Your task to perform on an android device: View the shopping cart on newegg. Add duracell triple a to the cart on newegg, then select checkout. Image 0: 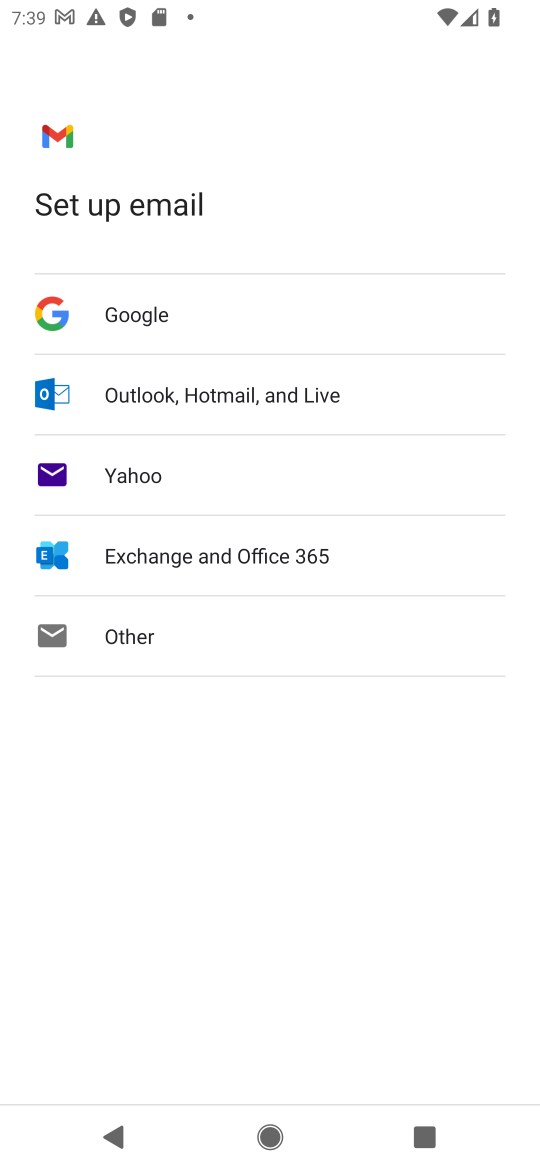
Step 0: press home button
Your task to perform on an android device: View the shopping cart on newegg. Add duracell triple a to the cart on newegg, then select checkout. Image 1: 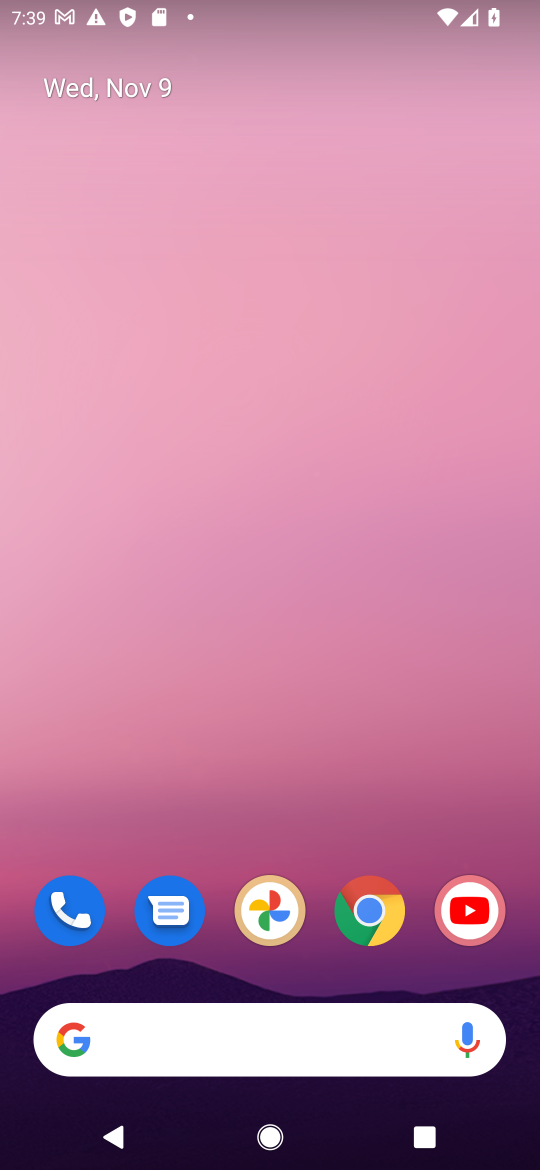
Step 1: click (374, 934)
Your task to perform on an android device: View the shopping cart on newegg. Add duracell triple a to the cart on newegg, then select checkout. Image 2: 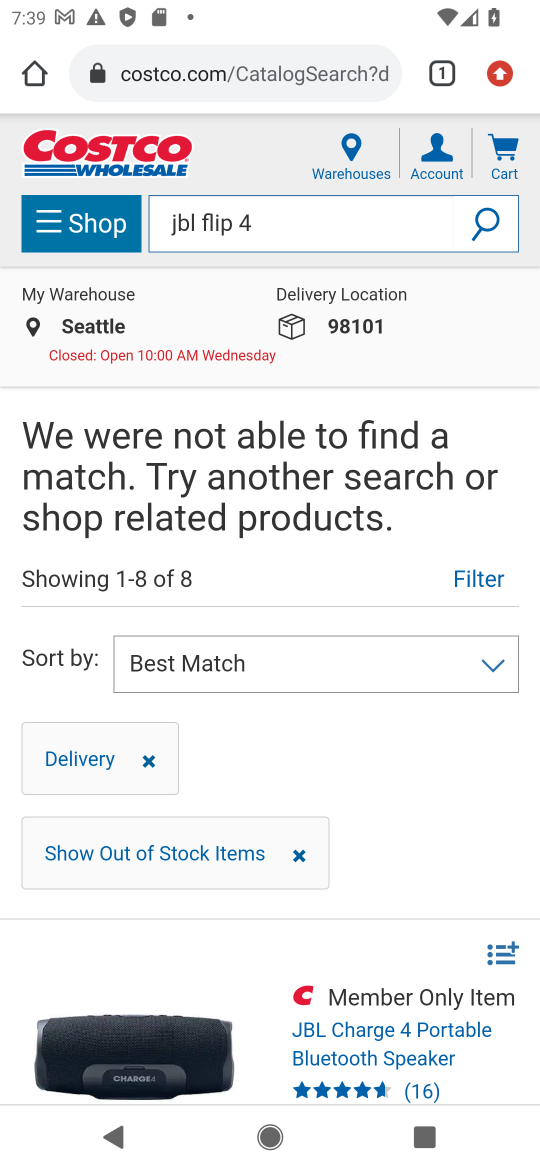
Step 2: click (221, 66)
Your task to perform on an android device: View the shopping cart on newegg. Add duracell triple a to the cart on newegg, then select checkout. Image 3: 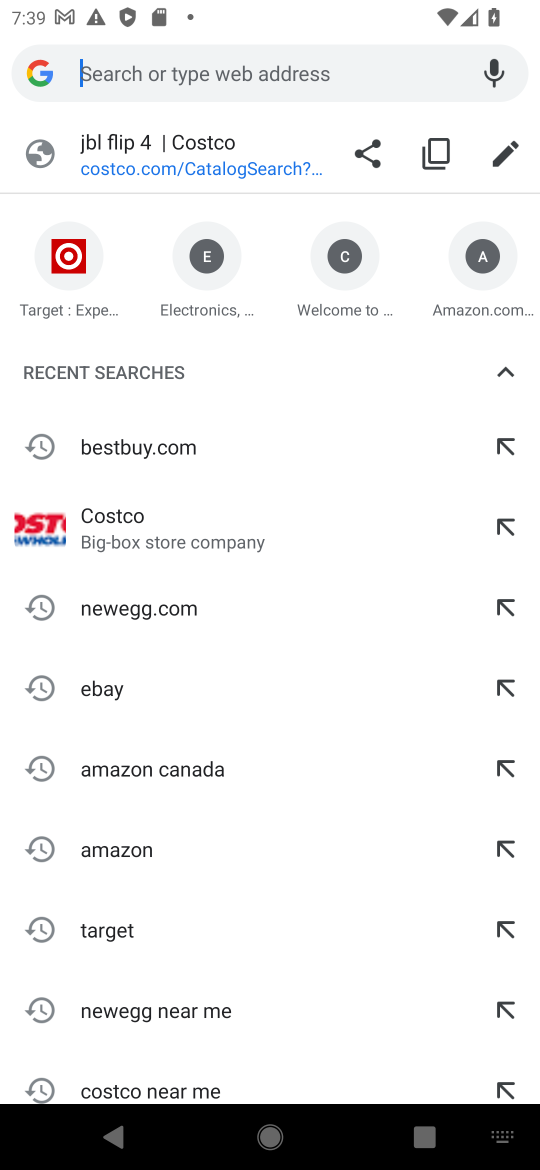
Step 3: click (126, 620)
Your task to perform on an android device: View the shopping cart on newegg. Add duracell triple a to the cart on newegg, then select checkout. Image 4: 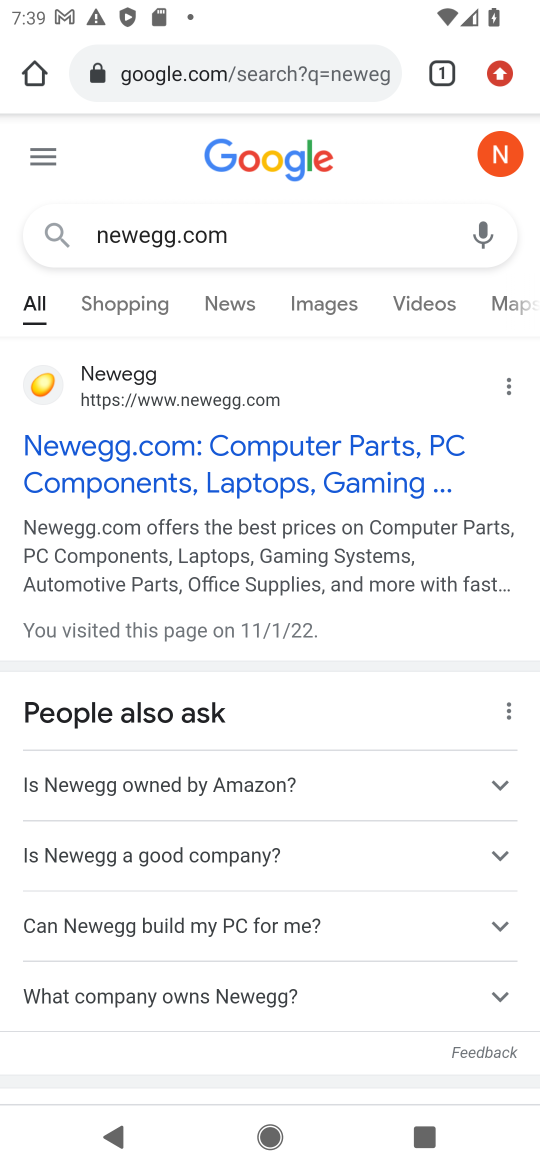
Step 4: click (120, 443)
Your task to perform on an android device: View the shopping cart on newegg. Add duracell triple a to the cart on newegg, then select checkout. Image 5: 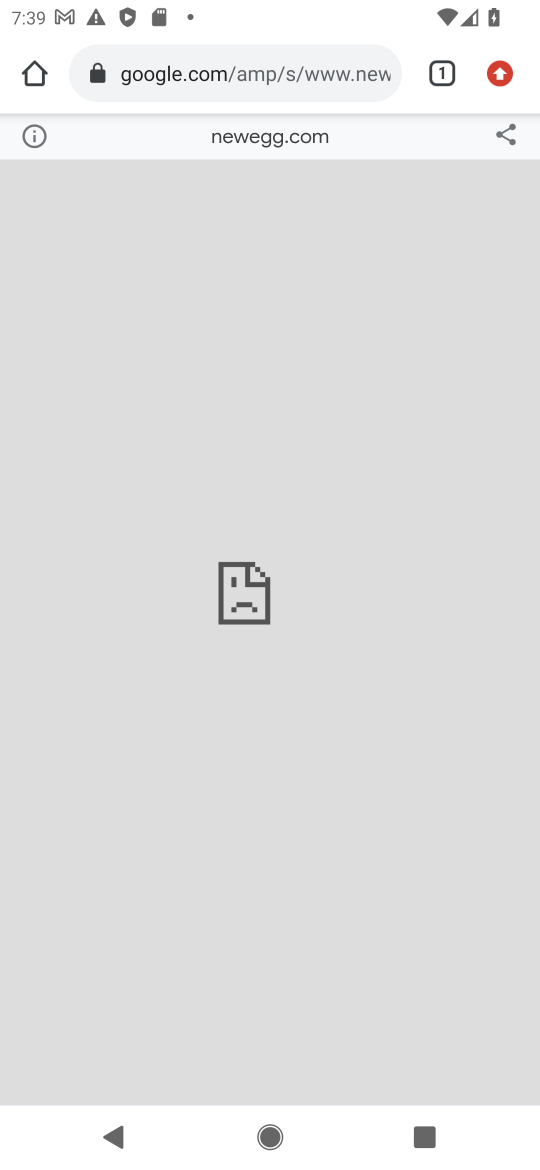
Step 5: drag from (451, 537) to (451, 747)
Your task to perform on an android device: View the shopping cart on newegg. Add duracell triple a to the cart on newegg, then select checkout. Image 6: 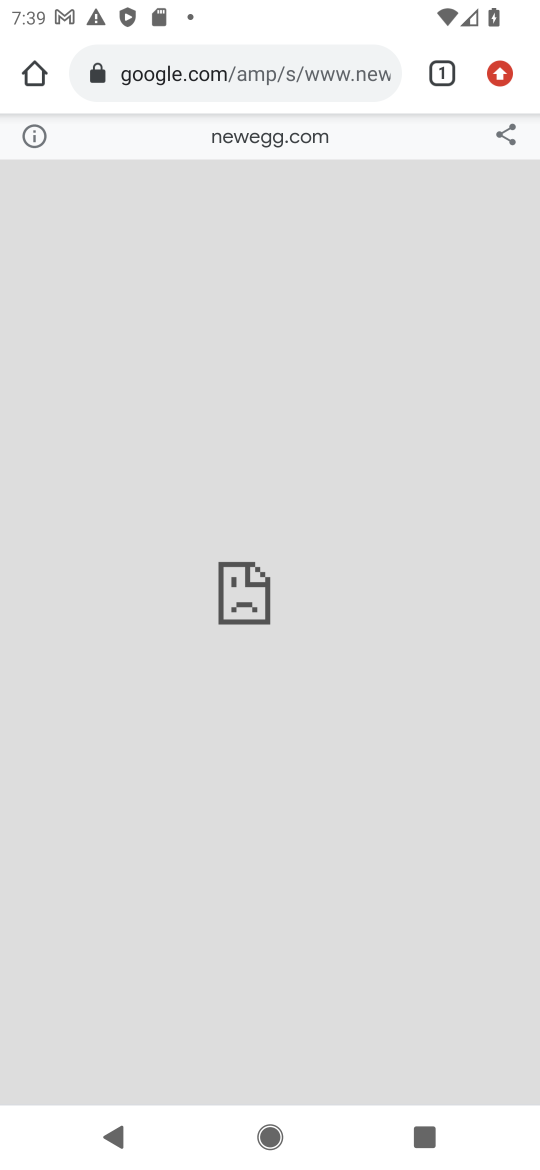
Step 6: click (258, 91)
Your task to perform on an android device: View the shopping cart on newegg. Add duracell triple a to the cart on newegg, then select checkout. Image 7: 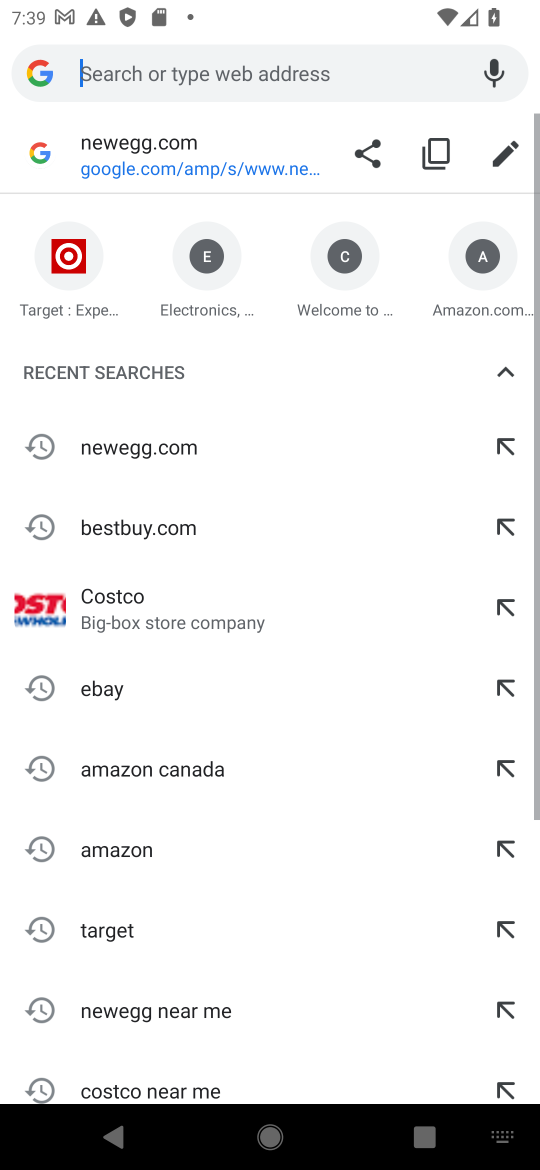
Step 7: click (156, 459)
Your task to perform on an android device: View the shopping cart on newegg. Add duracell triple a to the cart on newegg, then select checkout. Image 8: 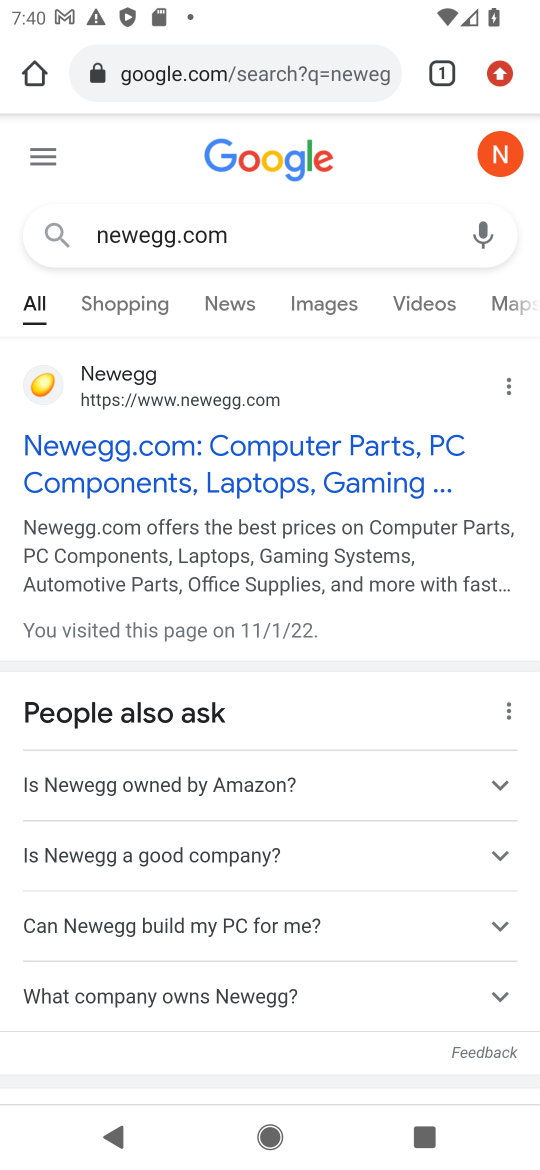
Step 8: drag from (170, 727) to (190, 352)
Your task to perform on an android device: View the shopping cart on newegg. Add duracell triple a to the cart on newegg, then select checkout. Image 9: 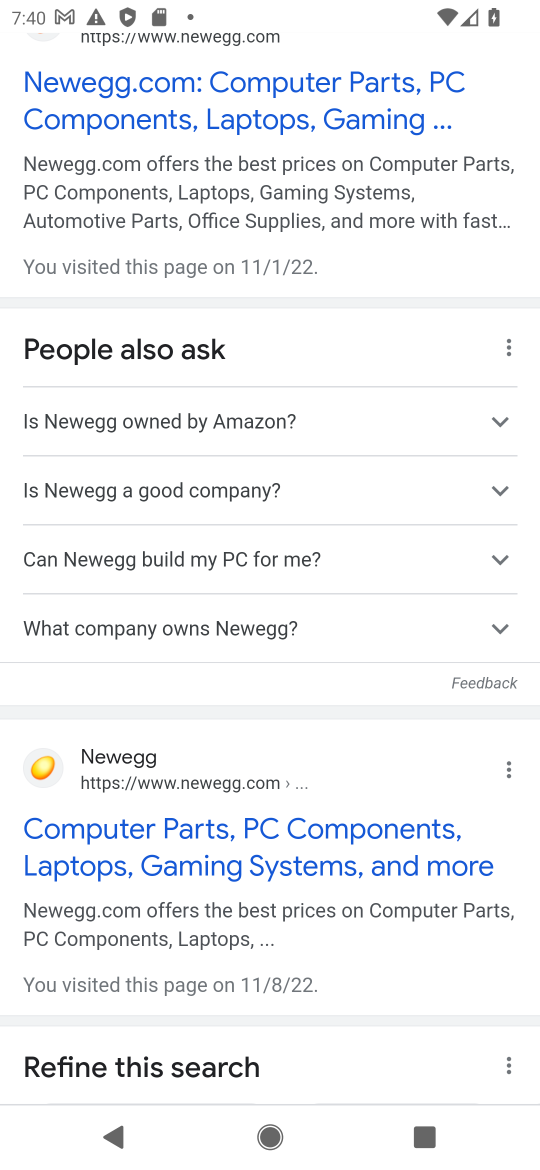
Step 9: click (142, 845)
Your task to perform on an android device: View the shopping cart on newegg. Add duracell triple a to the cart on newegg, then select checkout. Image 10: 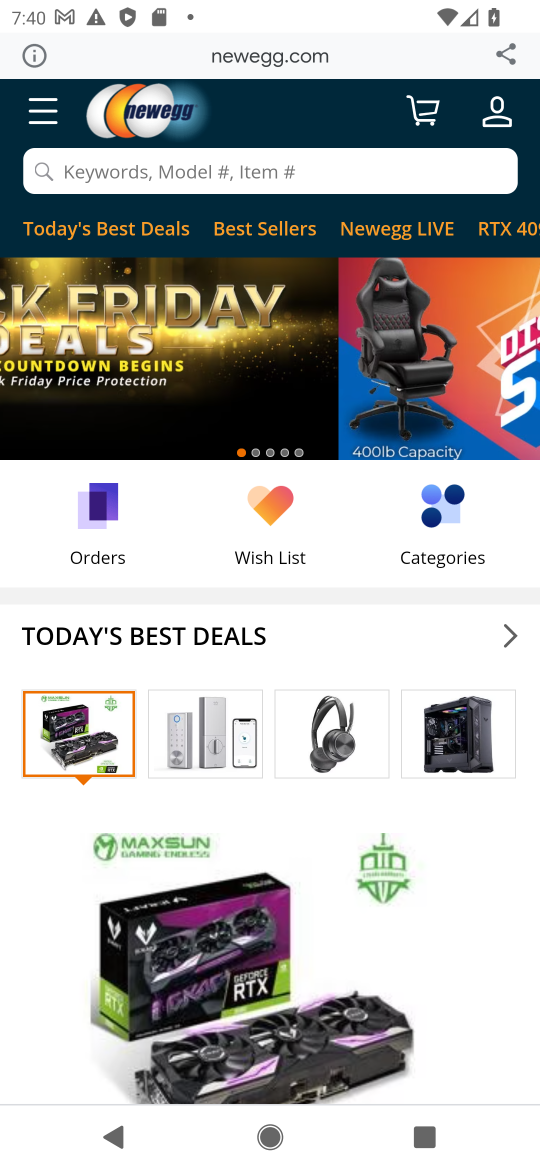
Step 10: click (438, 110)
Your task to perform on an android device: View the shopping cart on newegg. Add duracell triple a to the cart on newegg, then select checkout. Image 11: 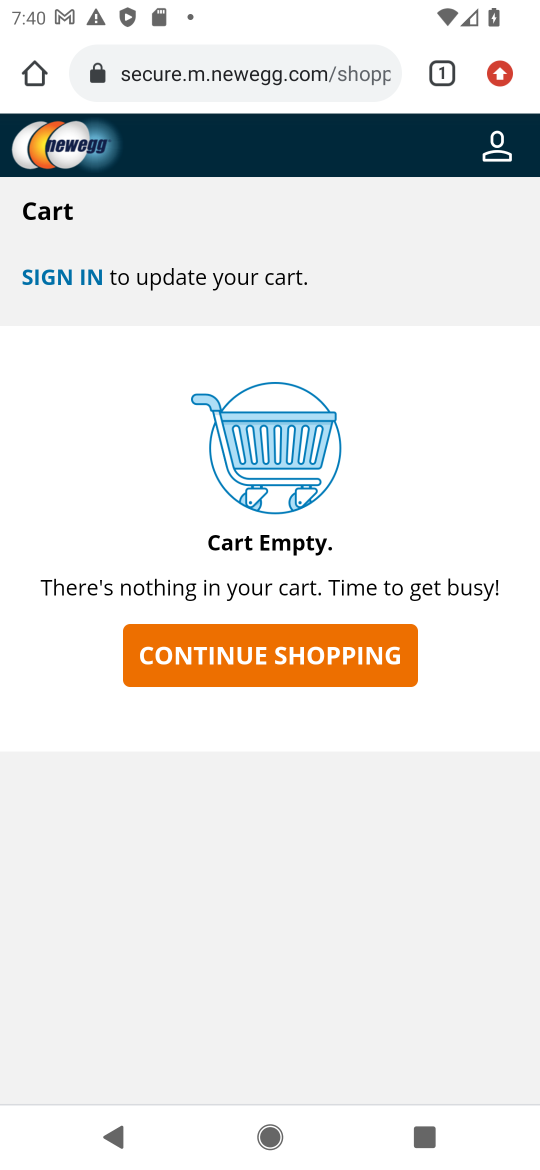
Step 11: click (322, 661)
Your task to perform on an android device: View the shopping cart on newegg. Add duracell triple a to the cart on newegg, then select checkout. Image 12: 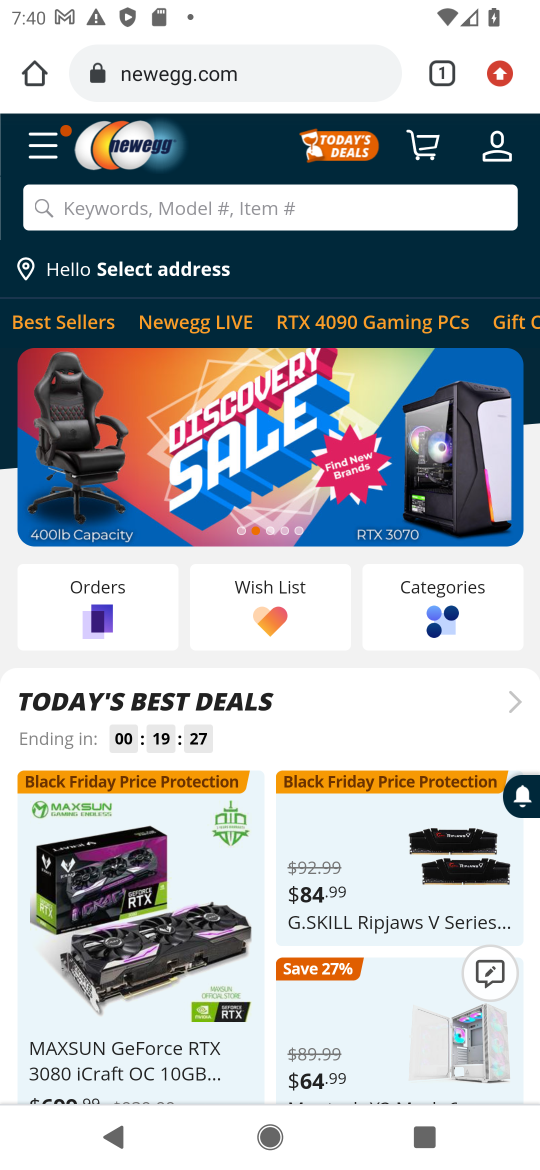
Step 12: click (285, 222)
Your task to perform on an android device: View the shopping cart on newegg. Add duracell triple a to the cart on newegg, then select checkout. Image 13: 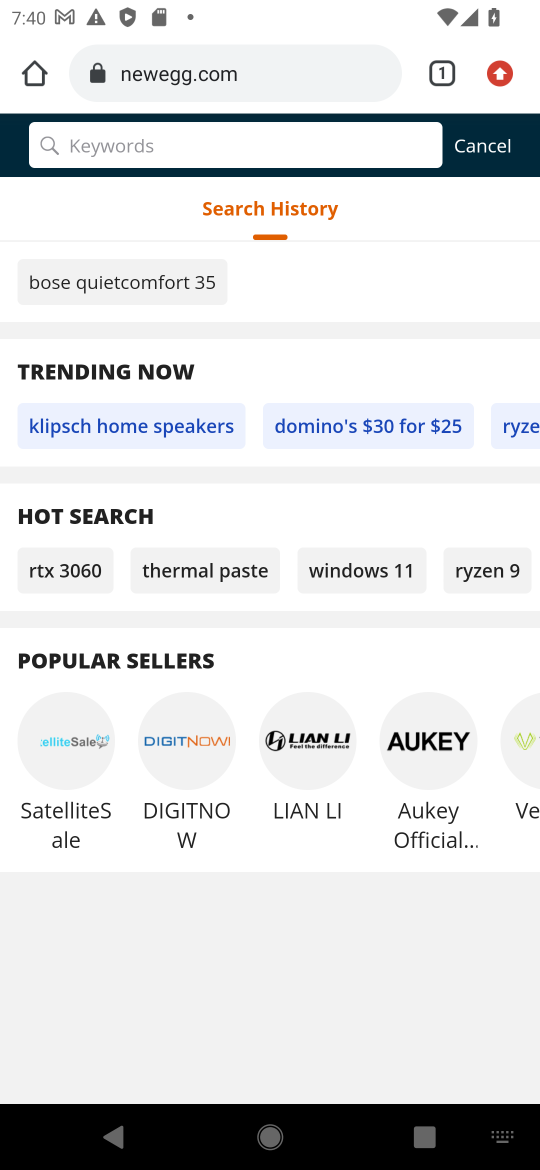
Step 13: type "duracell triple a"
Your task to perform on an android device: View the shopping cart on newegg. Add duracell triple a to the cart on newegg, then select checkout. Image 14: 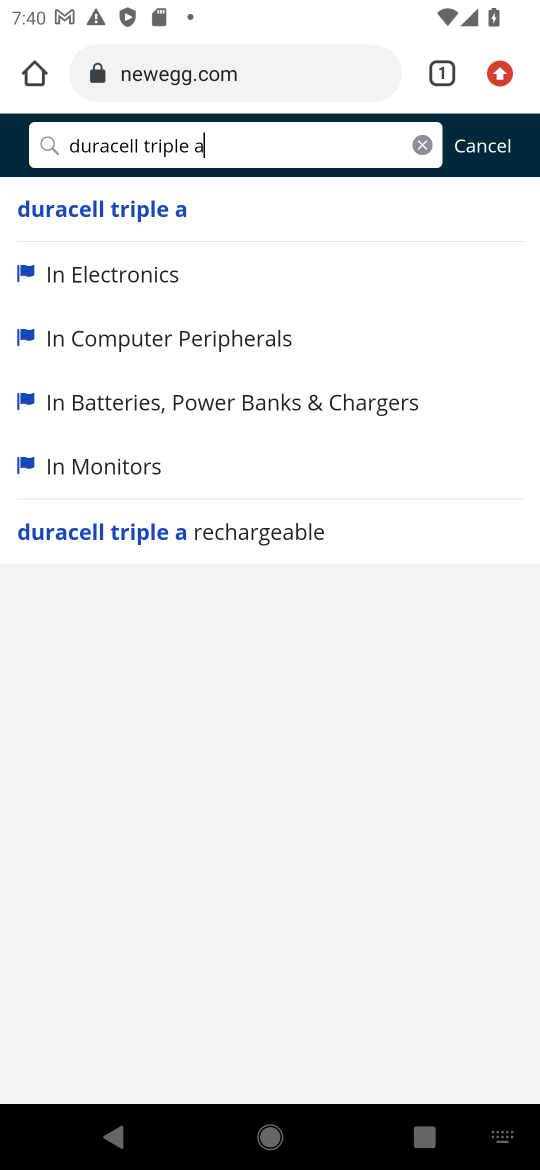
Step 14: click (130, 206)
Your task to perform on an android device: View the shopping cart on newegg. Add duracell triple a to the cart on newegg, then select checkout. Image 15: 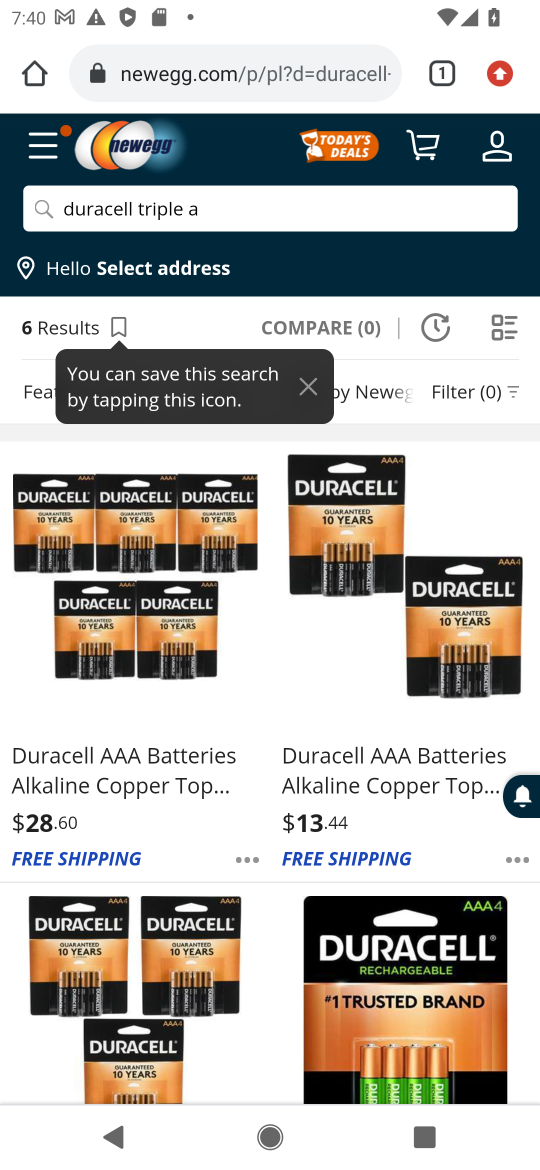
Step 15: click (145, 640)
Your task to perform on an android device: View the shopping cart on newegg. Add duracell triple a to the cart on newegg, then select checkout. Image 16: 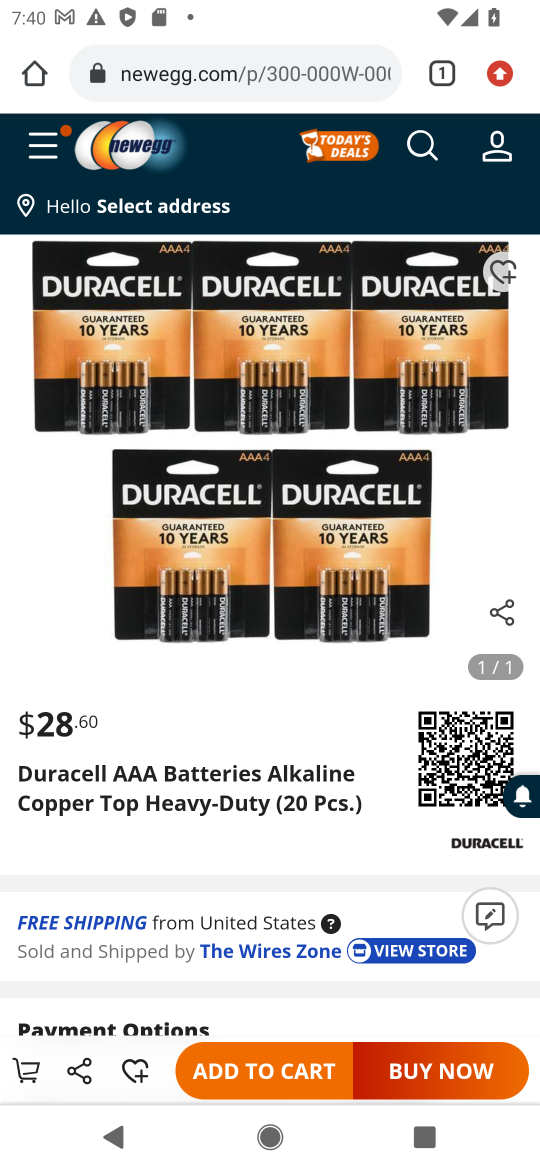
Step 16: click (242, 1097)
Your task to perform on an android device: View the shopping cart on newegg. Add duracell triple a to the cart on newegg, then select checkout. Image 17: 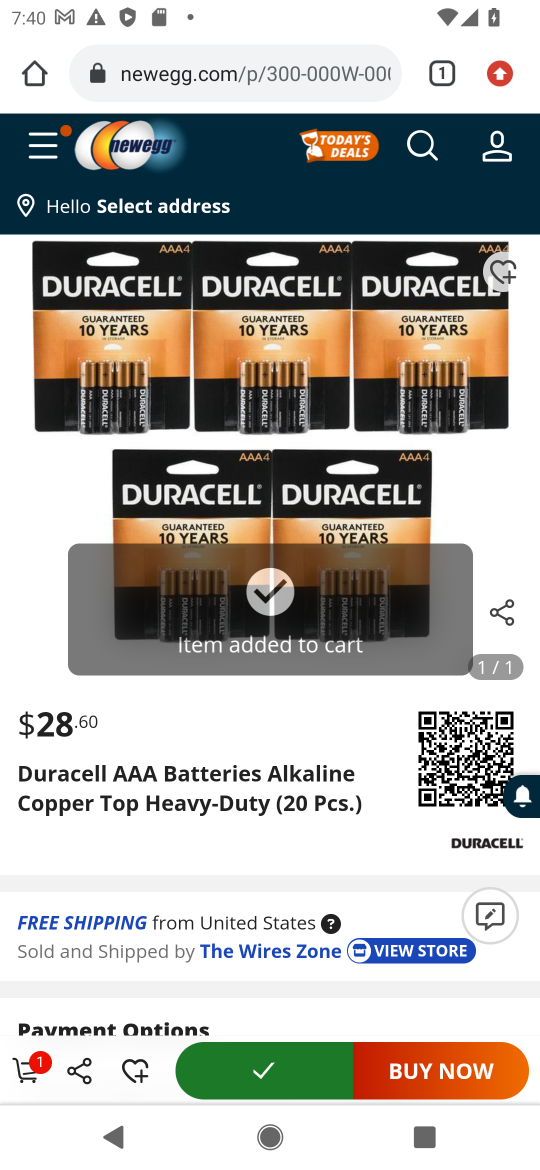
Step 17: click (40, 1066)
Your task to perform on an android device: View the shopping cart on newegg. Add duracell triple a to the cart on newegg, then select checkout. Image 18: 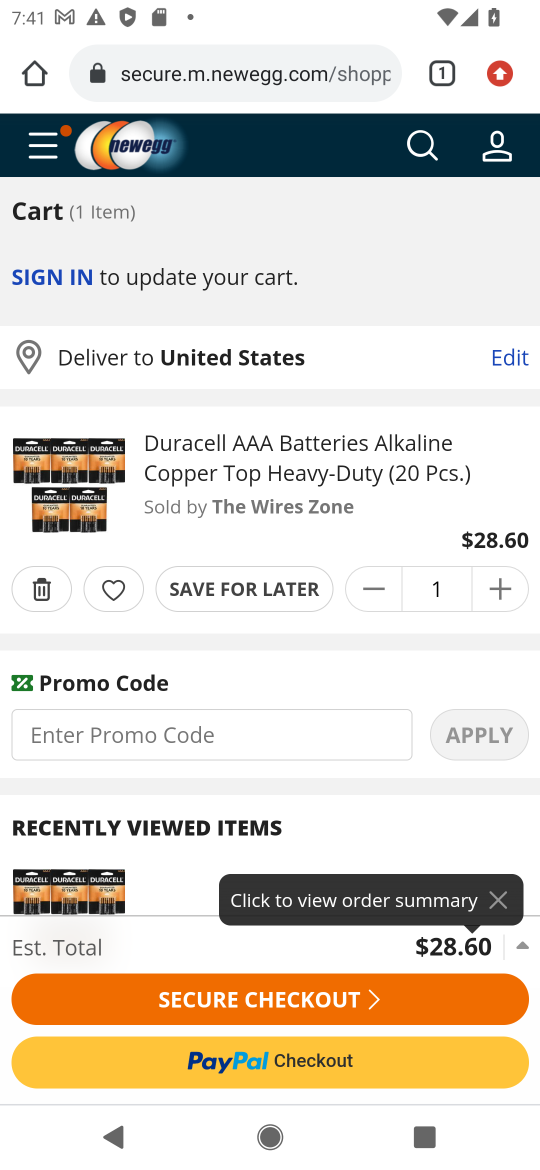
Step 18: click (261, 998)
Your task to perform on an android device: View the shopping cart on newegg. Add duracell triple a to the cart on newegg, then select checkout. Image 19: 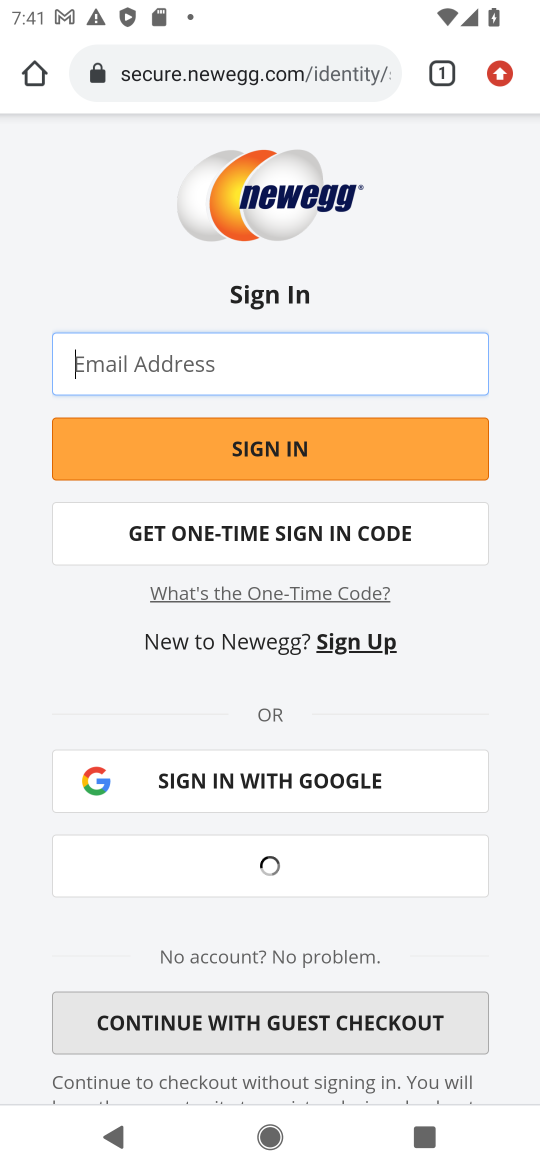
Step 19: task complete